Your task to perform on an android device: open chrome and create a bookmark for the current page Image 0: 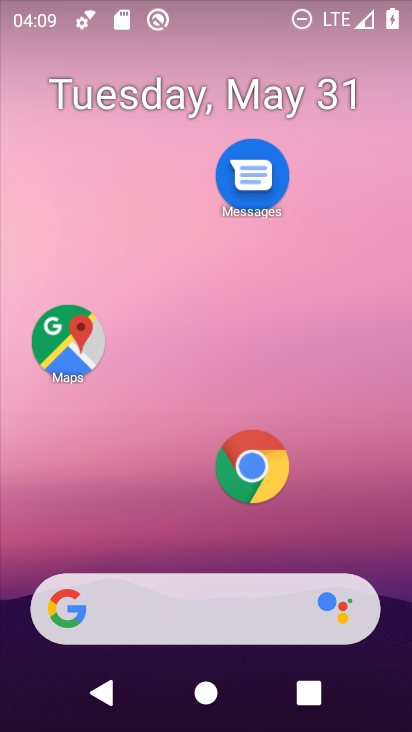
Step 0: click (251, 449)
Your task to perform on an android device: open chrome and create a bookmark for the current page Image 1: 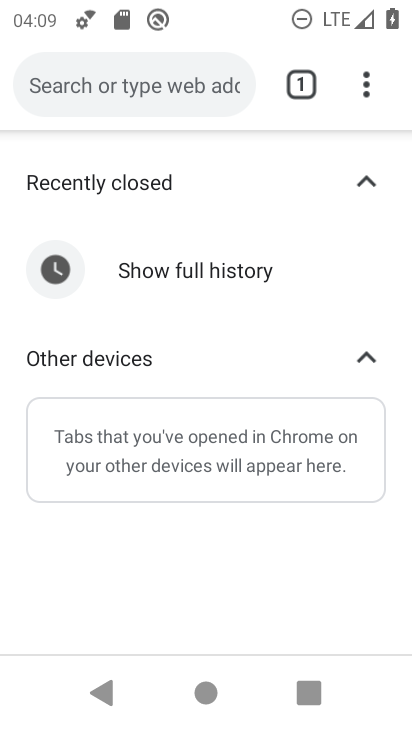
Step 1: task complete